Your task to perform on an android device: toggle location history Image 0: 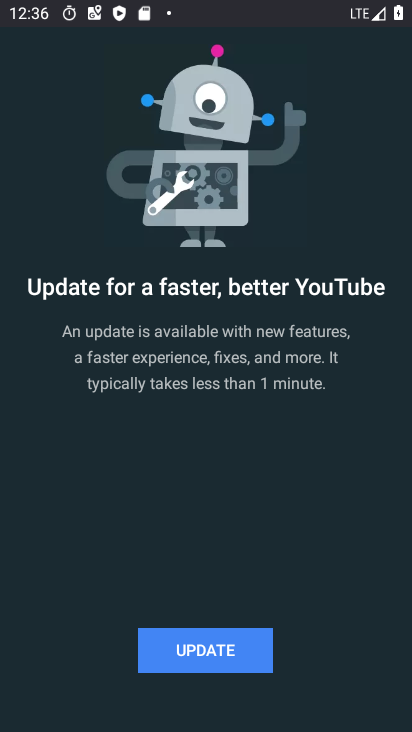
Step 0: press home button
Your task to perform on an android device: toggle location history Image 1: 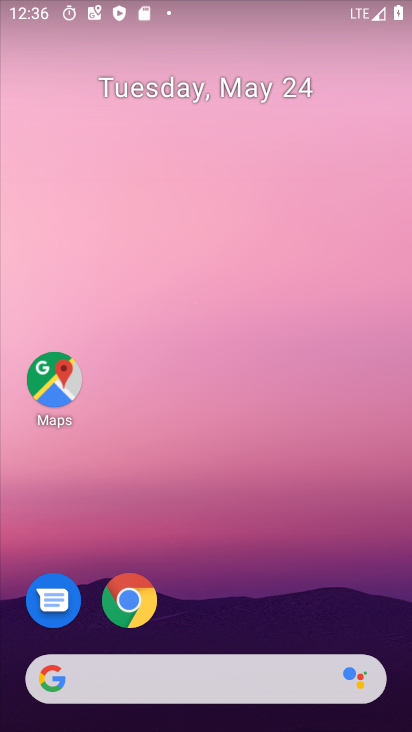
Step 1: drag from (321, 528) to (235, 83)
Your task to perform on an android device: toggle location history Image 2: 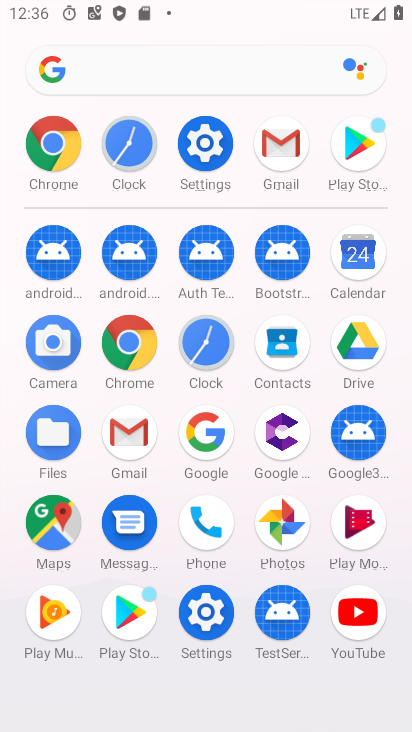
Step 2: click (195, 133)
Your task to perform on an android device: toggle location history Image 3: 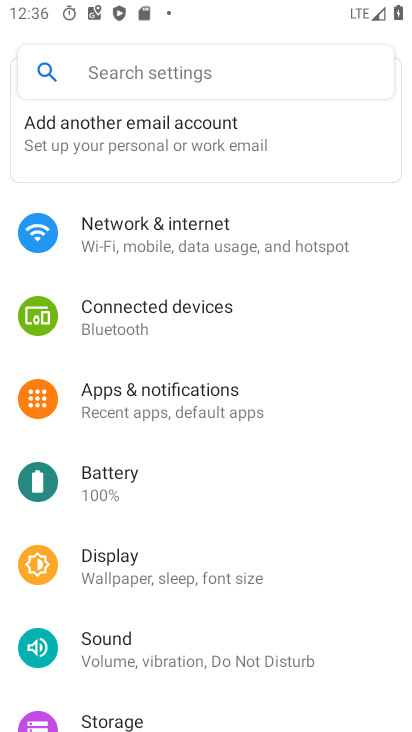
Step 3: drag from (184, 690) to (259, 289)
Your task to perform on an android device: toggle location history Image 4: 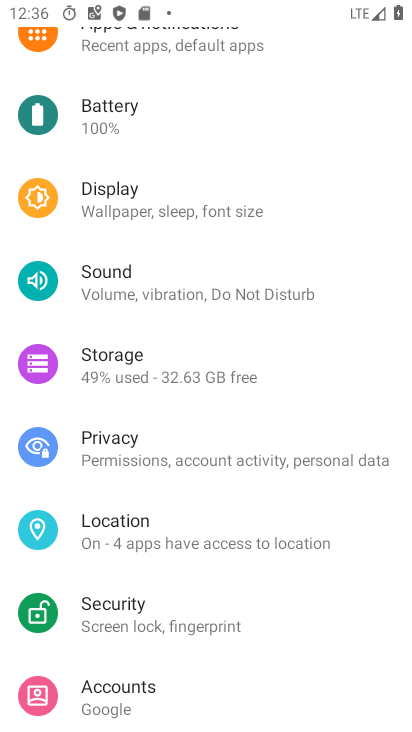
Step 4: click (164, 529)
Your task to perform on an android device: toggle location history Image 5: 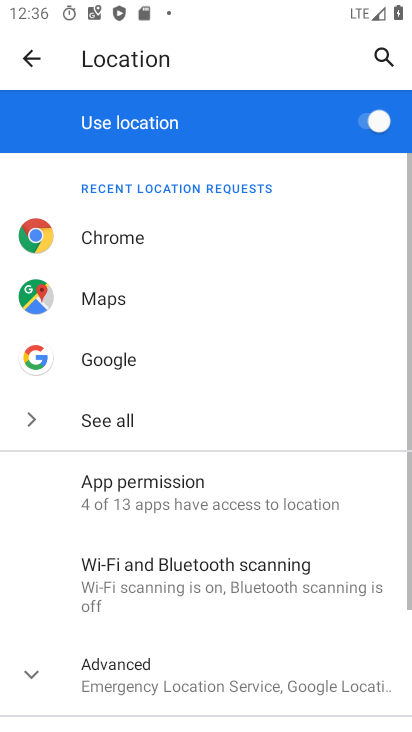
Step 5: click (124, 681)
Your task to perform on an android device: toggle location history Image 6: 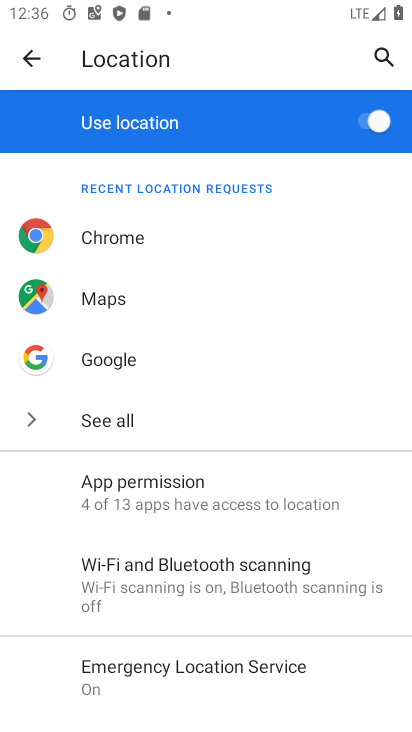
Step 6: drag from (152, 643) to (217, 226)
Your task to perform on an android device: toggle location history Image 7: 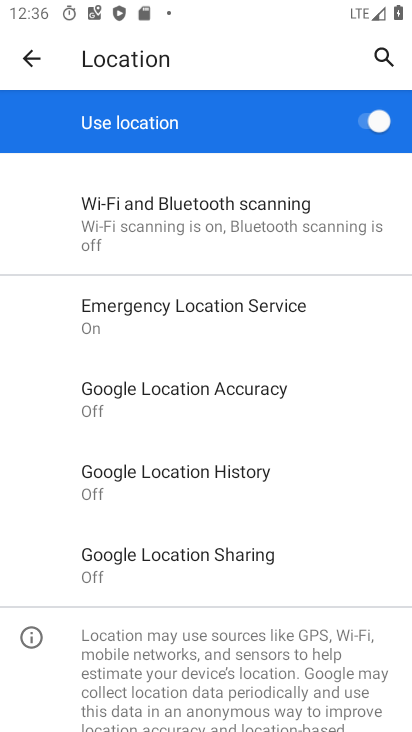
Step 7: click (165, 481)
Your task to perform on an android device: toggle location history Image 8: 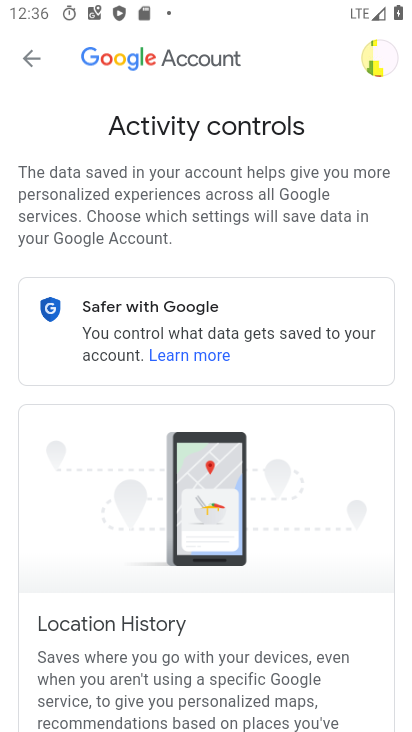
Step 8: drag from (317, 511) to (344, 37)
Your task to perform on an android device: toggle location history Image 9: 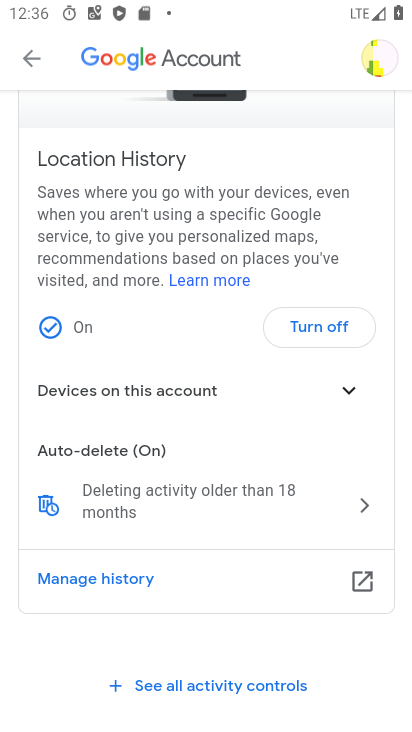
Step 9: click (314, 321)
Your task to perform on an android device: toggle location history Image 10: 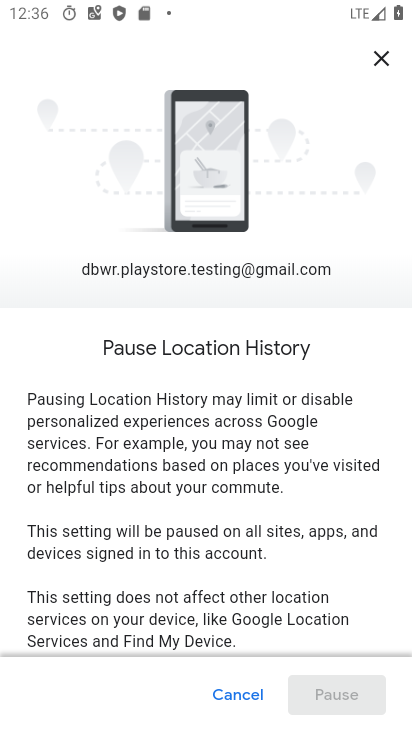
Step 10: drag from (242, 561) to (263, 52)
Your task to perform on an android device: toggle location history Image 11: 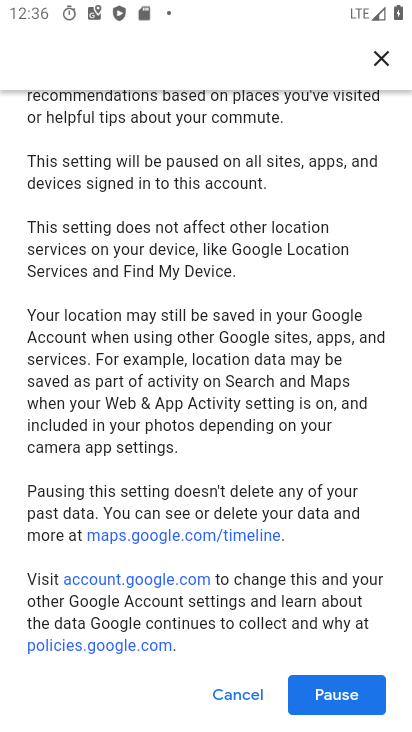
Step 11: click (337, 687)
Your task to perform on an android device: toggle location history Image 12: 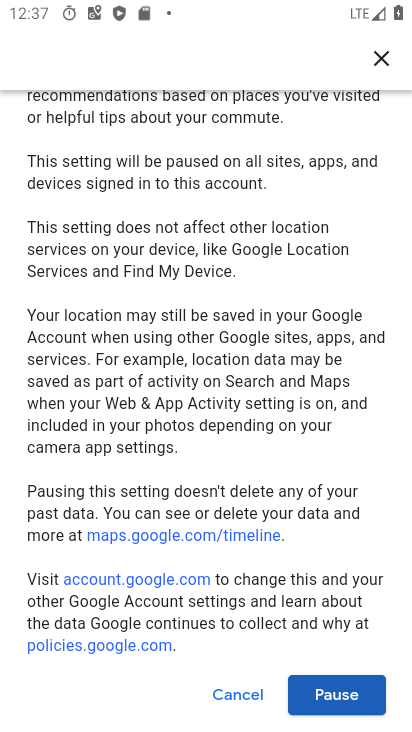
Step 12: click (330, 699)
Your task to perform on an android device: toggle location history Image 13: 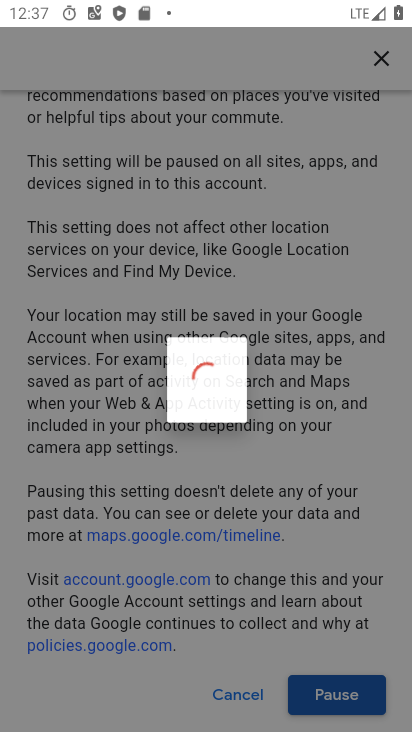
Step 13: click (343, 701)
Your task to perform on an android device: toggle location history Image 14: 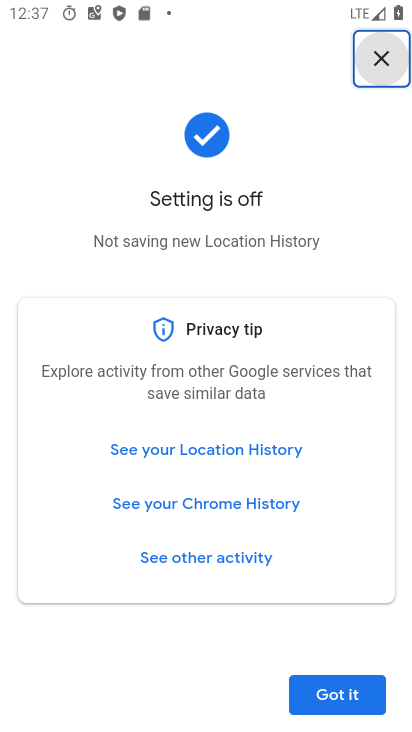
Step 14: task complete